Your task to perform on an android device: Open Yahoo.com Image 0: 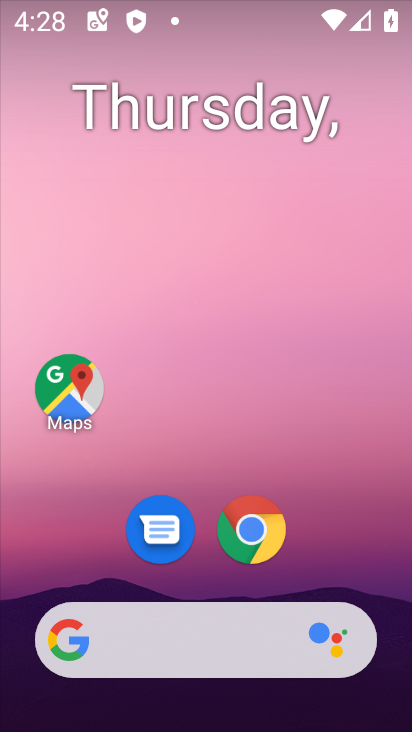
Step 0: click (258, 526)
Your task to perform on an android device: Open Yahoo.com Image 1: 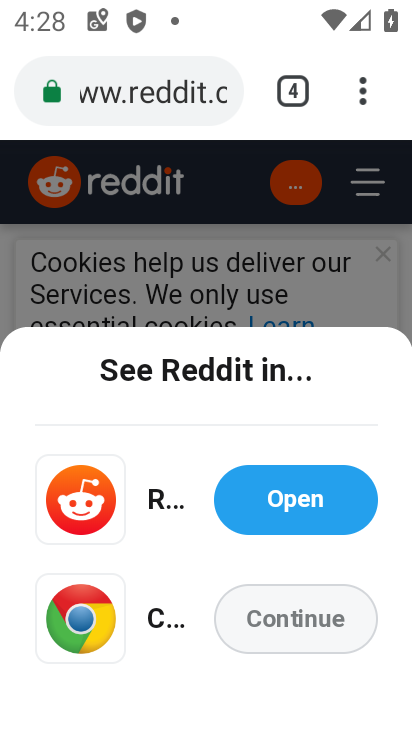
Step 1: click (364, 101)
Your task to perform on an android device: Open Yahoo.com Image 2: 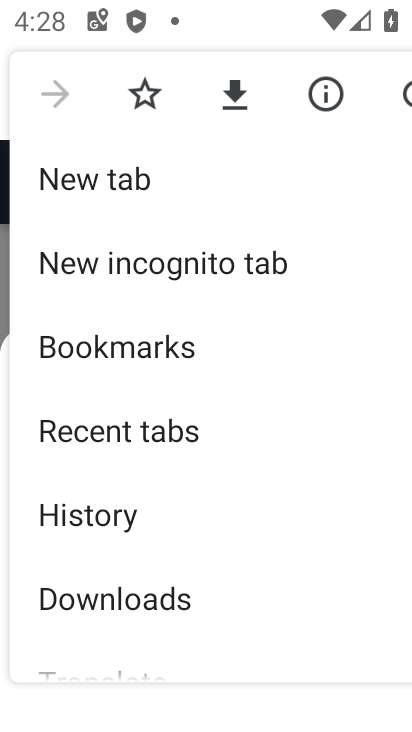
Step 2: click (95, 183)
Your task to perform on an android device: Open Yahoo.com Image 3: 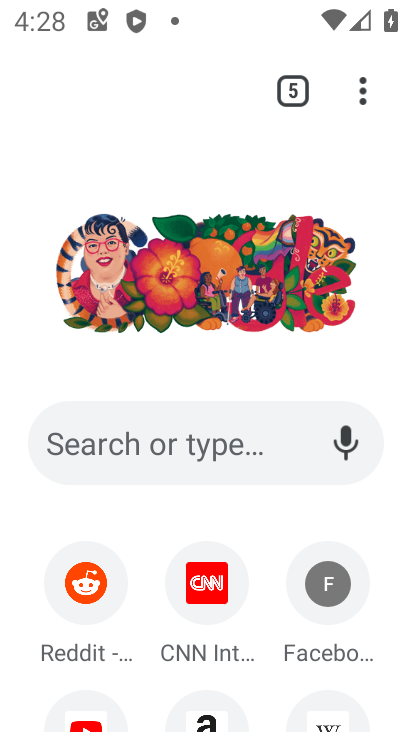
Step 3: click (175, 441)
Your task to perform on an android device: Open Yahoo.com Image 4: 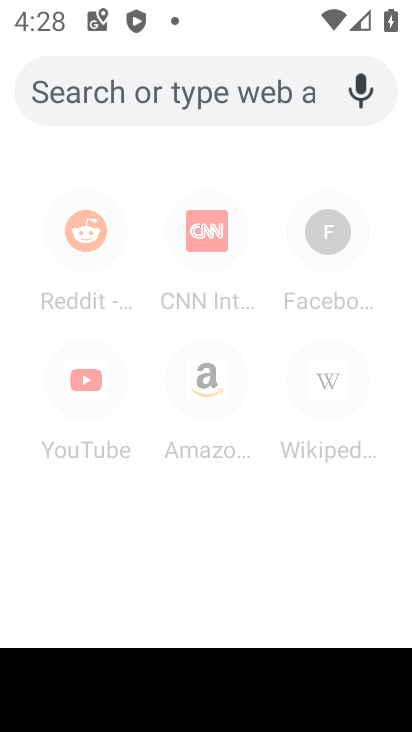
Step 4: type "yahoo.com"
Your task to perform on an android device: Open Yahoo.com Image 5: 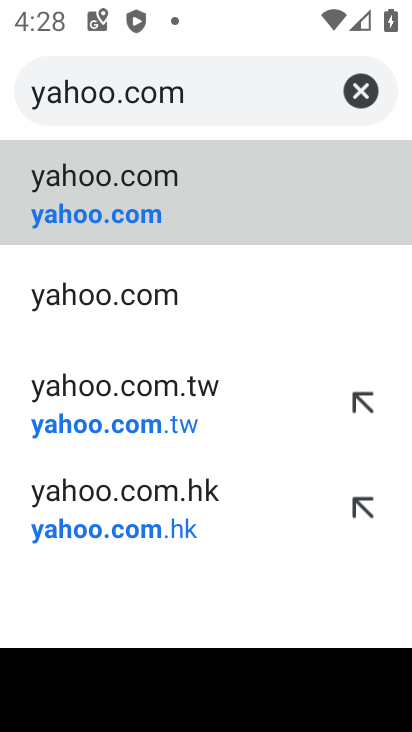
Step 5: click (109, 205)
Your task to perform on an android device: Open Yahoo.com Image 6: 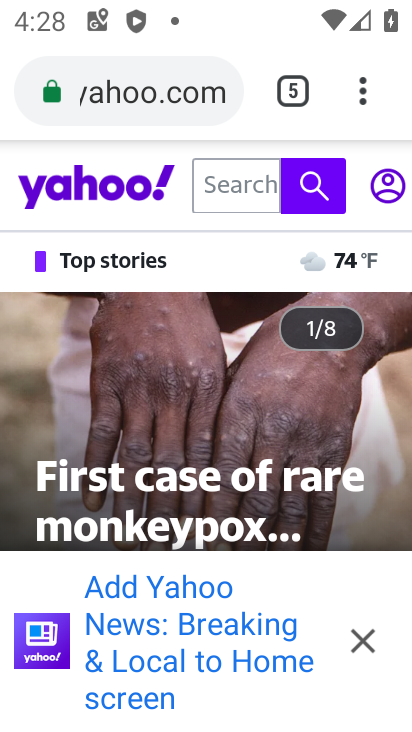
Step 6: task complete